Your task to perform on an android device: install app "Yahoo Mail" Image 0: 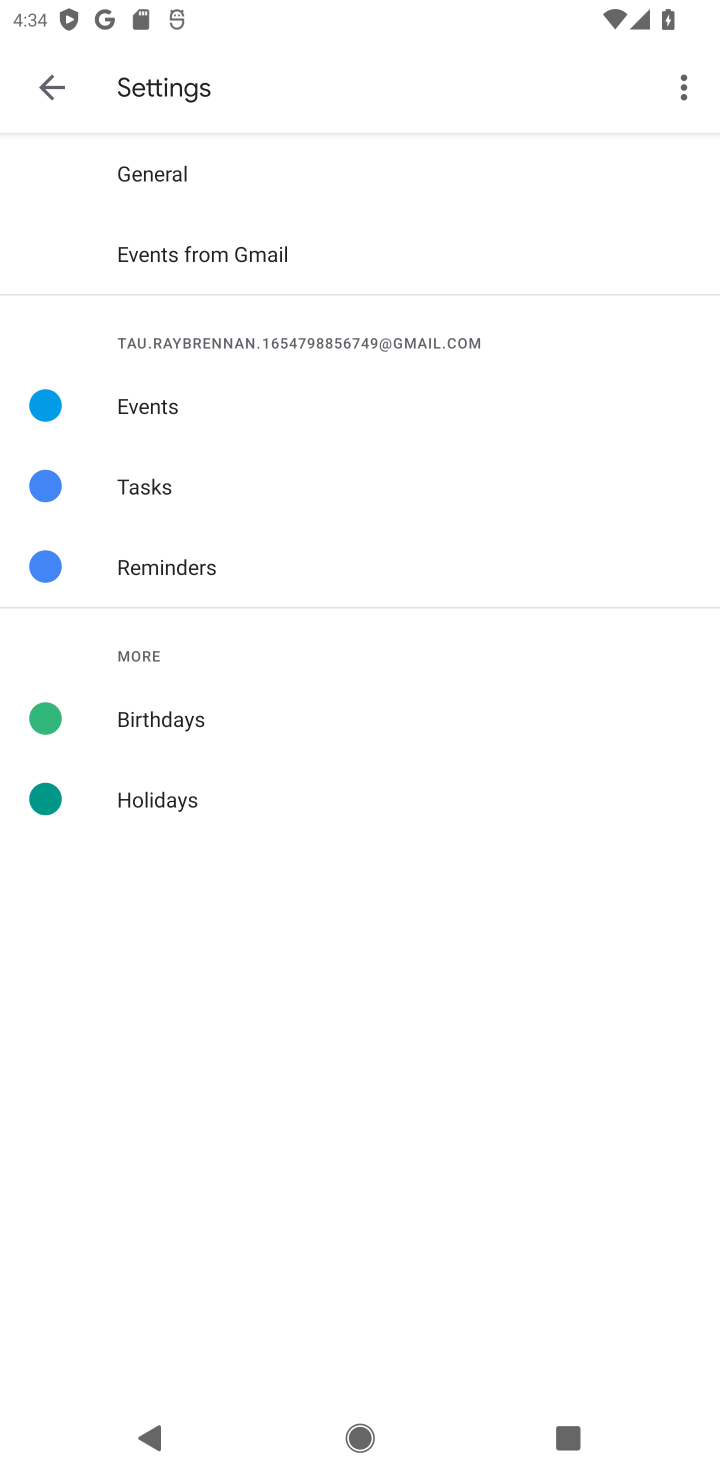
Step 0: press home button
Your task to perform on an android device: install app "Yahoo Mail" Image 1: 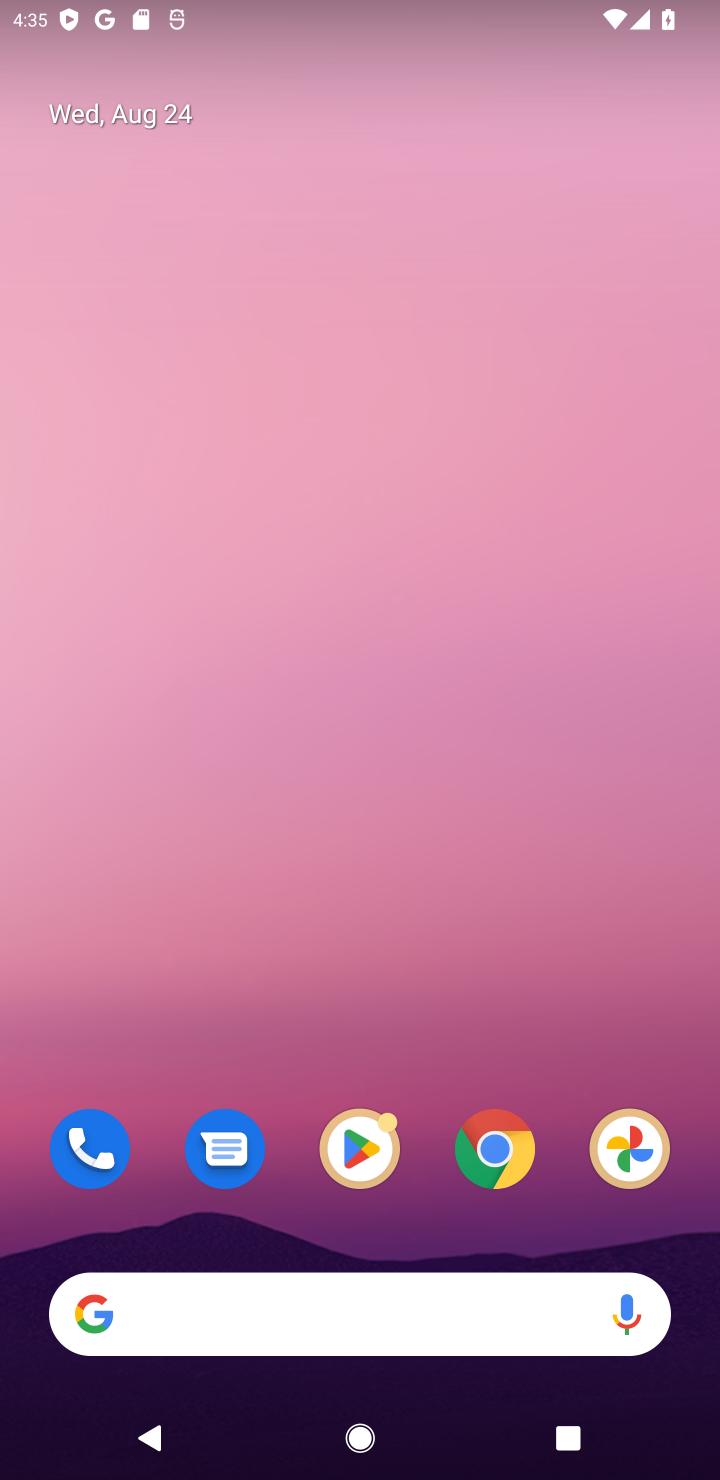
Step 1: click (363, 1163)
Your task to perform on an android device: install app "Yahoo Mail" Image 2: 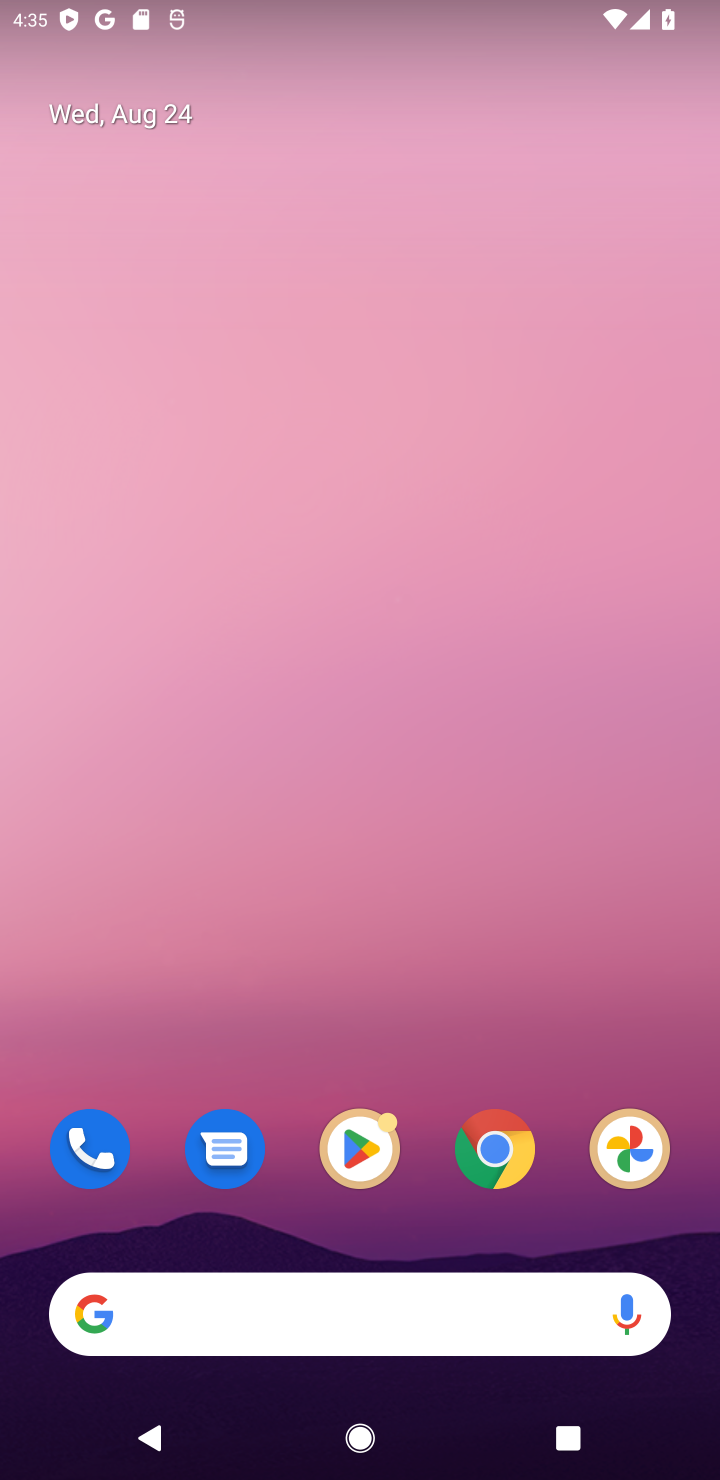
Step 2: click (363, 1163)
Your task to perform on an android device: install app "Yahoo Mail" Image 3: 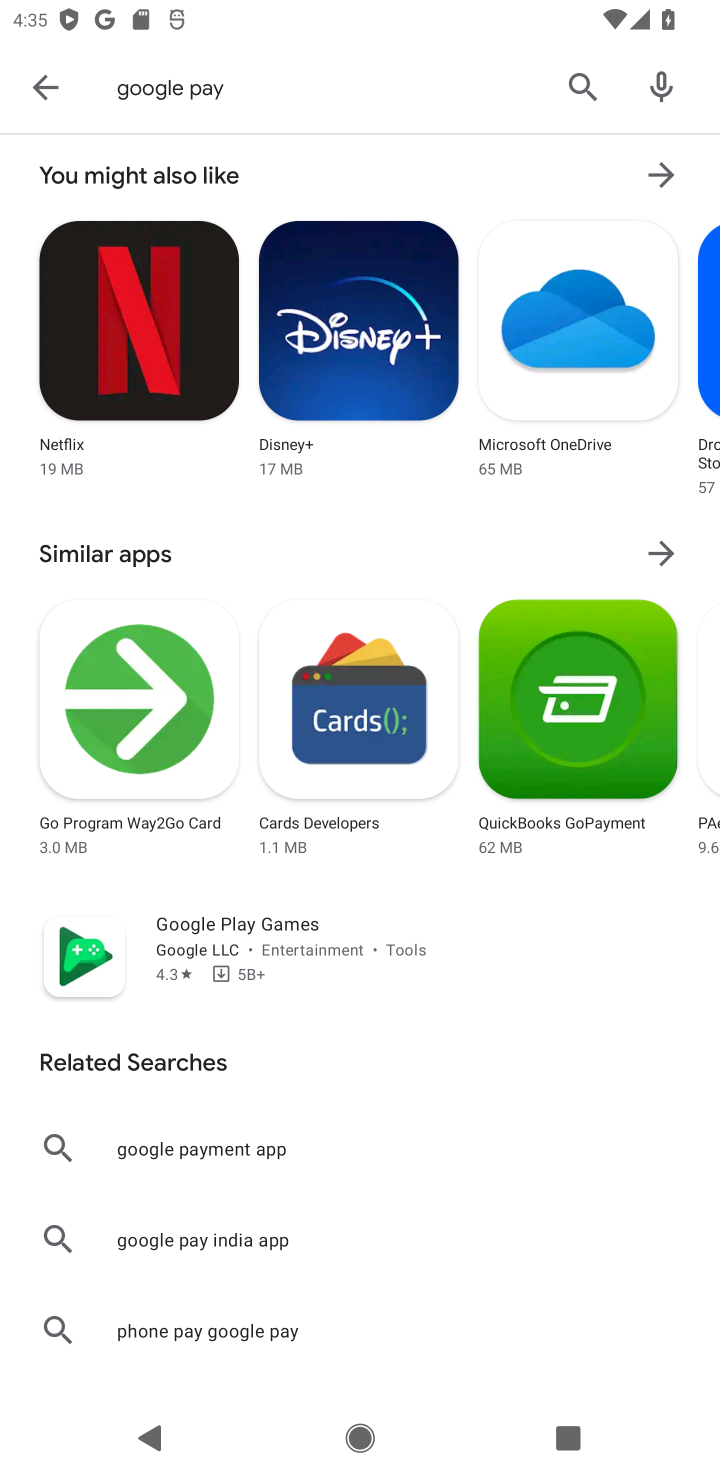
Step 3: click (573, 85)
Your task to perform on an android device: install app "Yahoo Mail" Image 4: 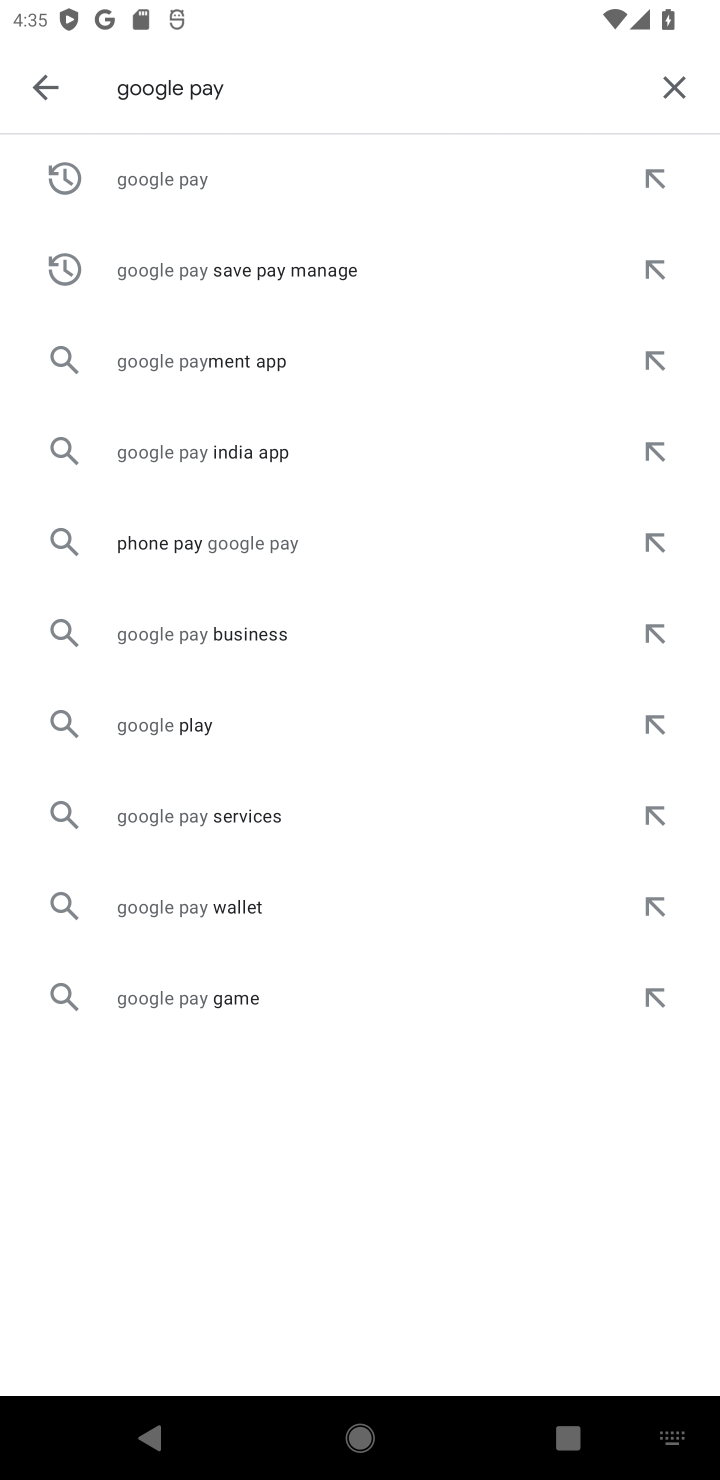
Step 4: click (674, 77)
Your task to perform on an android device: install app "Yahoo Mail" Image 5: 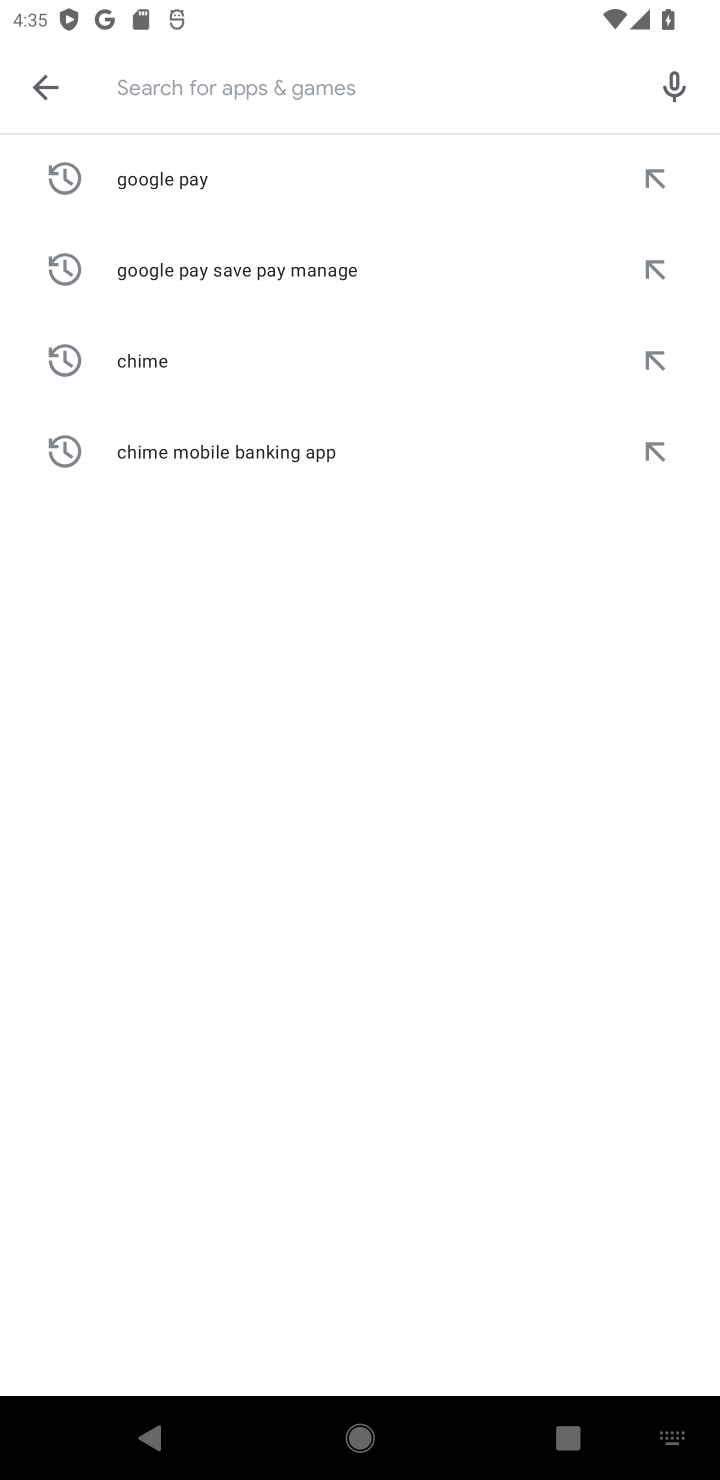
Step 5: type "Yahoo Mail"
Your task to perform on an android device: install app "Yahoo Mail" Image 6: 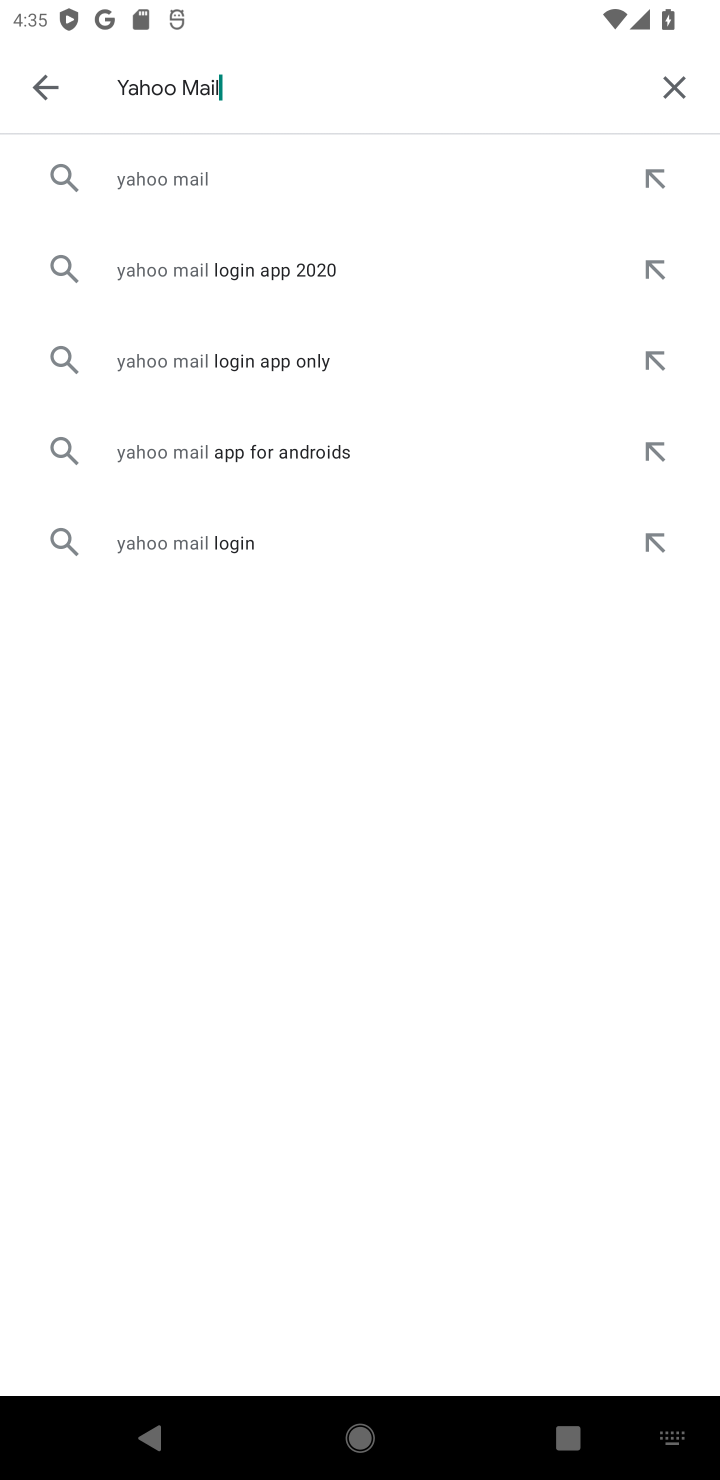
Step 6: click (144, 176)
Your task to perform on an android device: install app "Yahoo Mail" Image 7: 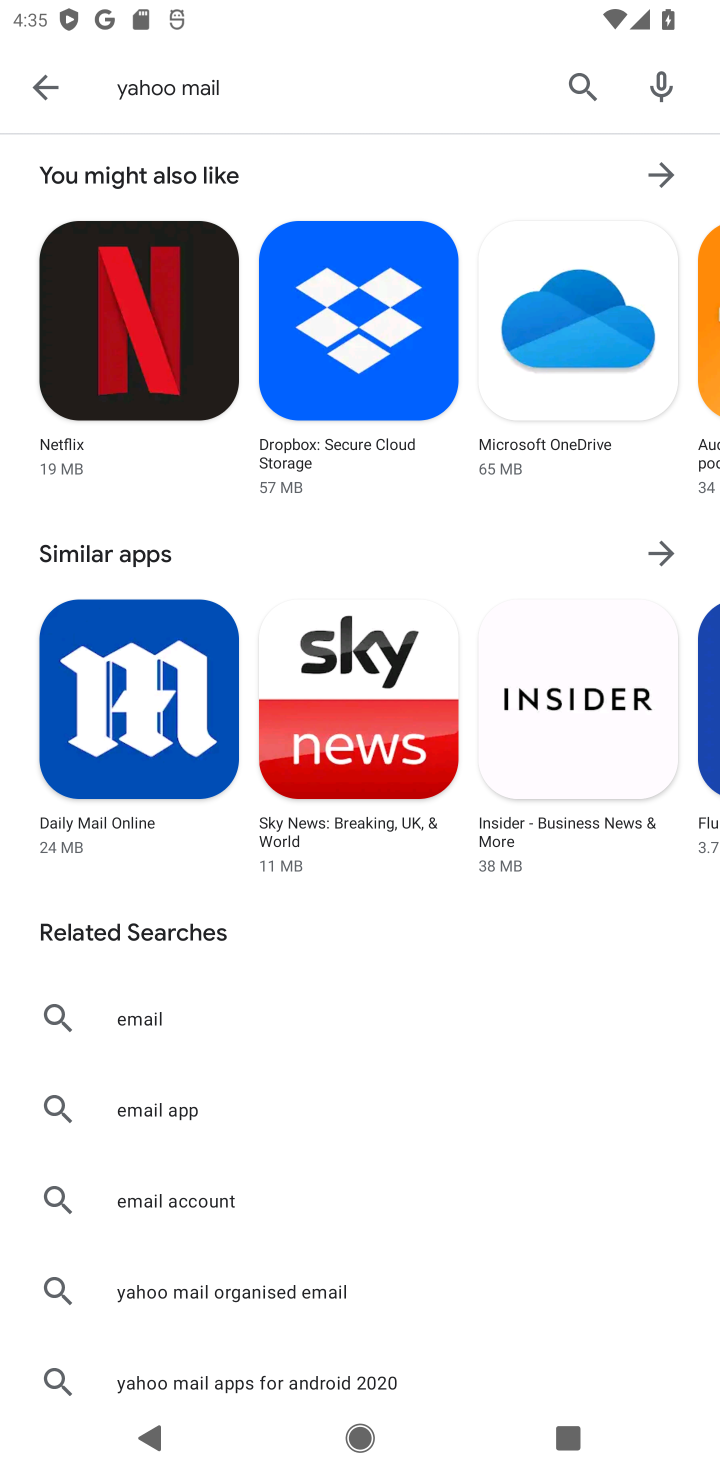
Step 7: task complete